Your task to perform on an android device: toggle data saver in the chrome app Image 0: 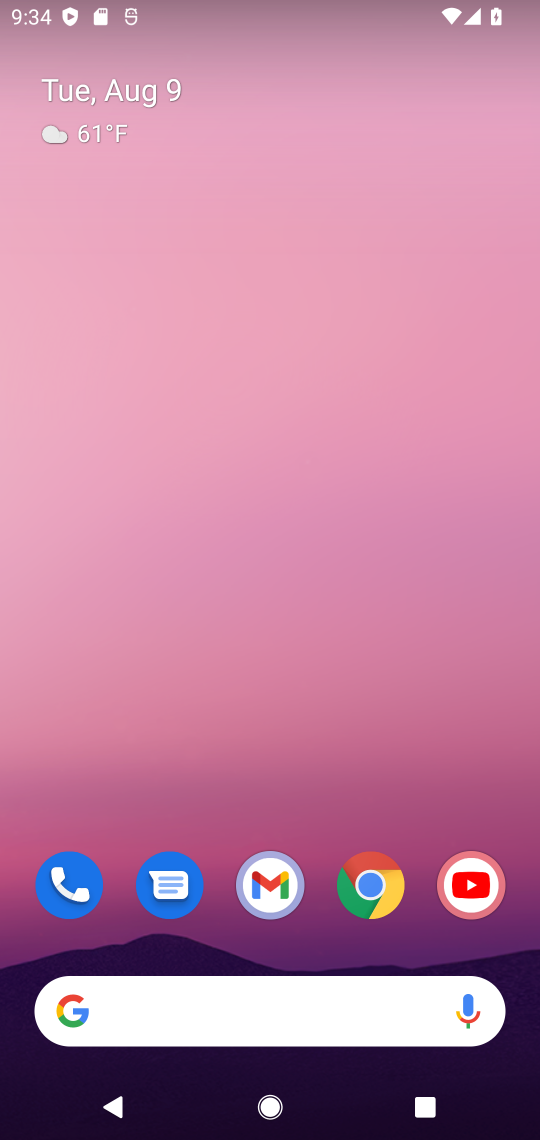
Step 0: press home button
Your task to perform on an android device: toggle data saver in the chrome app Image 1: 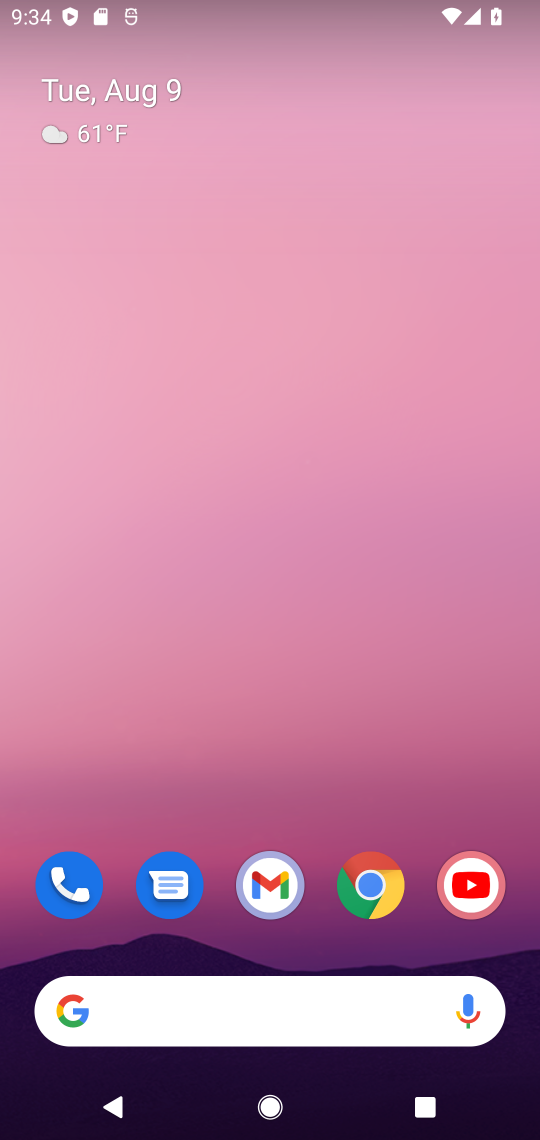
Step 1: click (365, 871)
Your task to perform on an android device: toggle data saver in the chrome app Image 2: 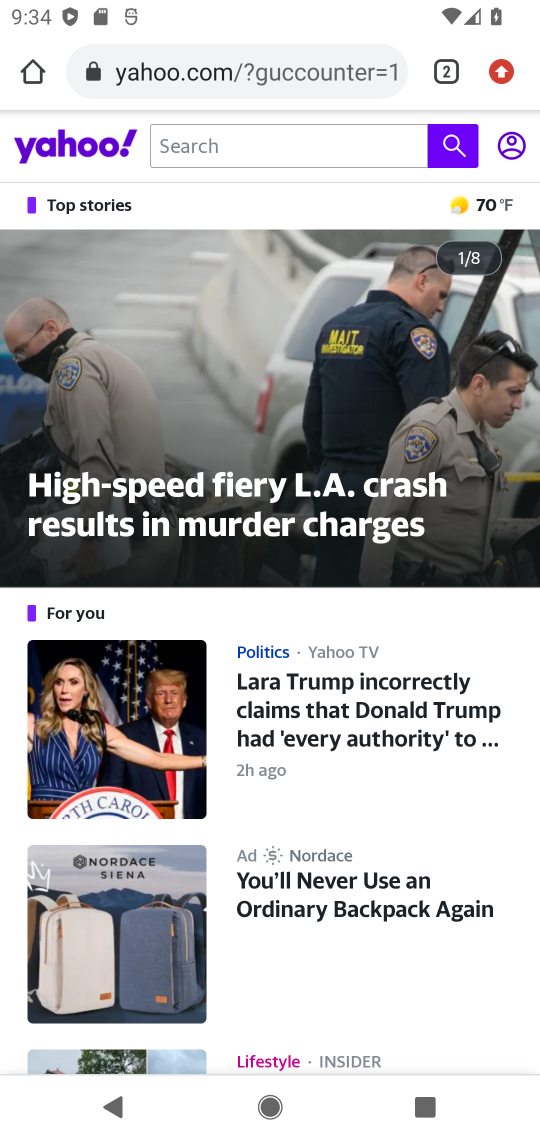
Step 2: click (507, 76)
Your task to perform on an android device: toggle data saver in the chrome app Image 3: 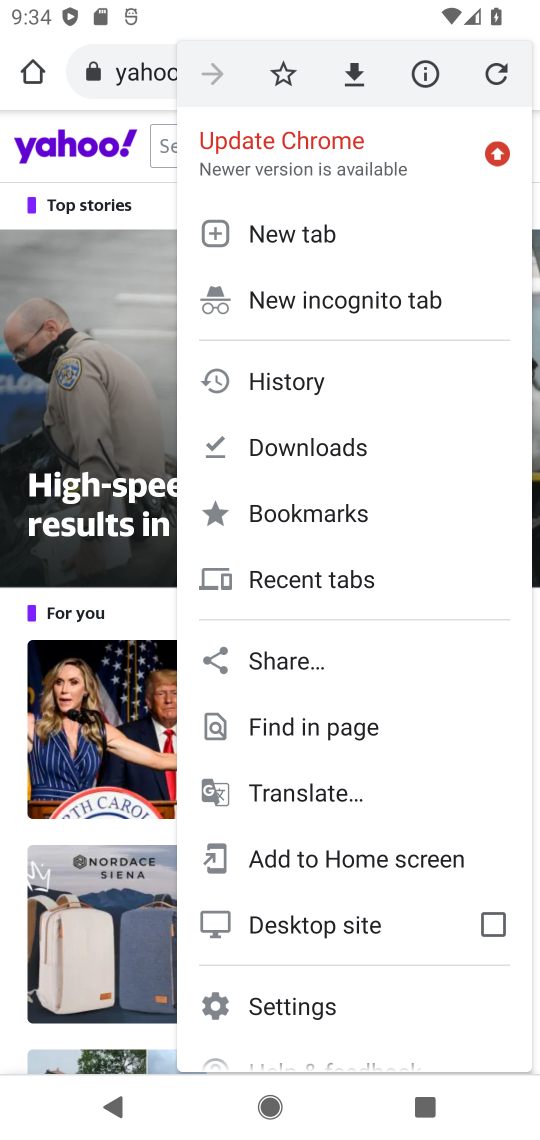
Step 3: click (343, 1007)
Your task to perform on an android device: toggle data saver in the chrome app Image 4: 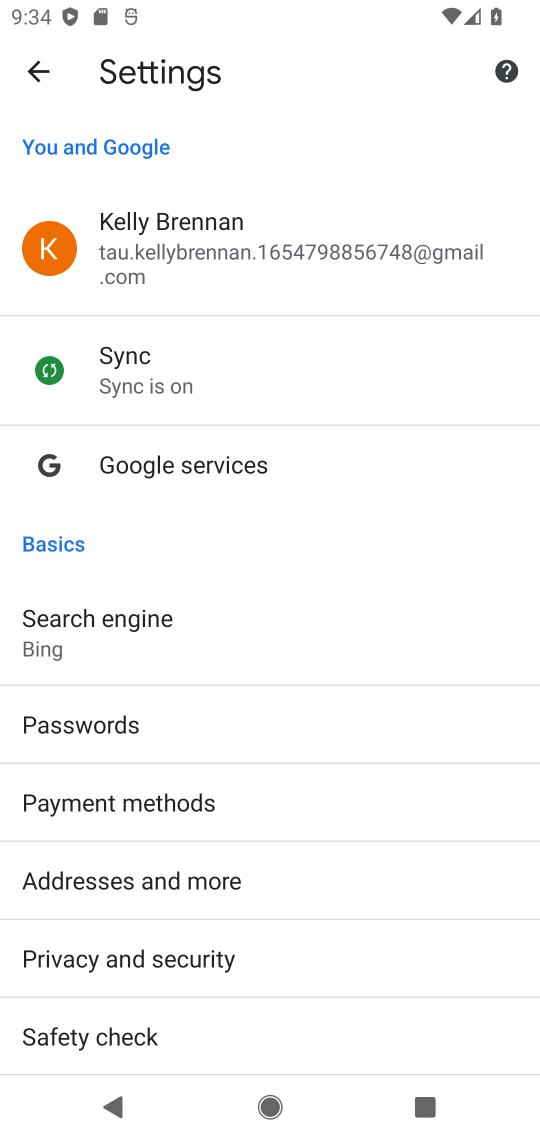
Step 4: drag from (254, 986) to (321, 400)
Your task to perform on an android device: toggle data saver in the chrome app Image 5: 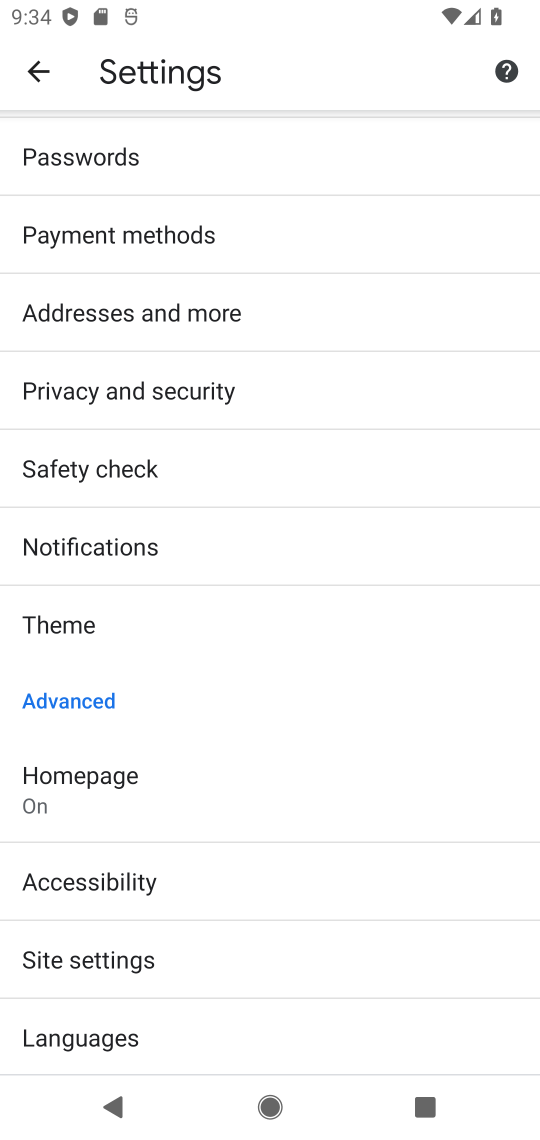
Step 5: drag from (166, 1046) to (217, 237)
Your task to perform on an android device: toggle data saver in the chrome app Image 6: 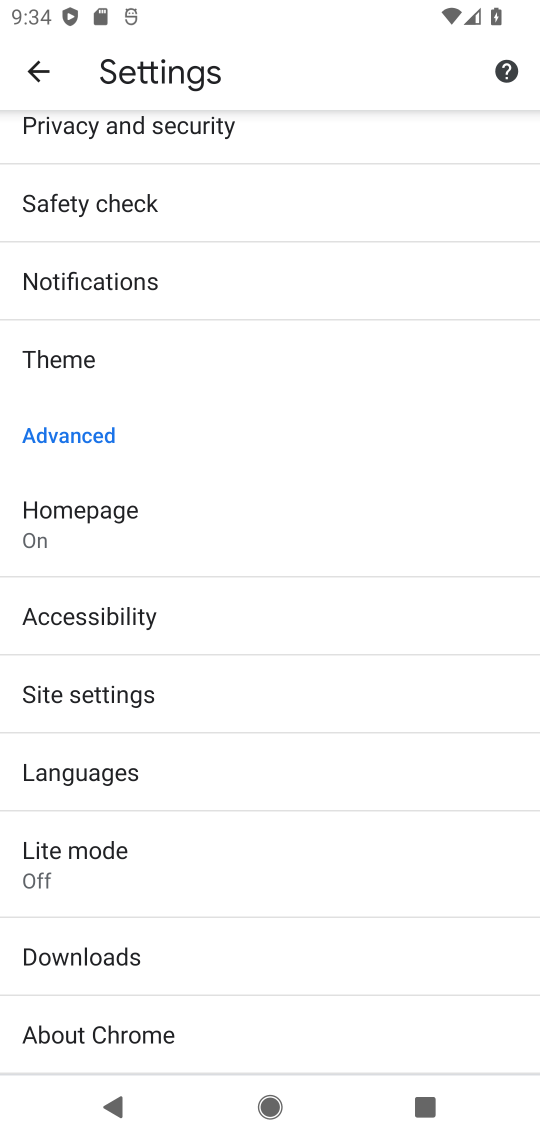
Step 6: click (130, 861)
Your task to perform on an android device: toggle data saver in the chrome app Image 7: 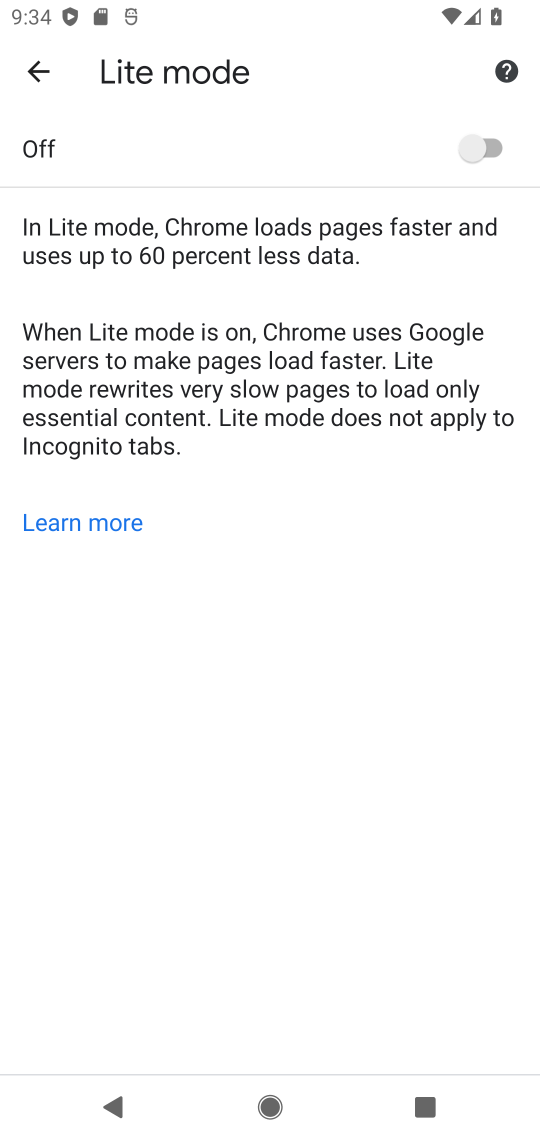
Step 7: click (487, 145)
Your task to perform on an android device: toggle data saver in the chrome app Image 8: 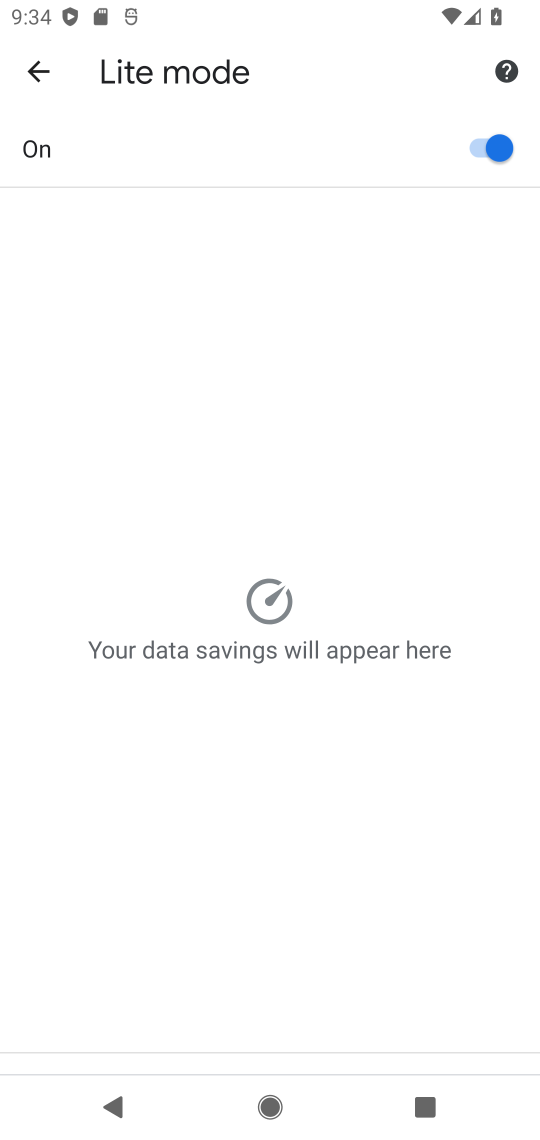
Step 8: task complete